Your task to perform on an android device: Open eBay Image 0: 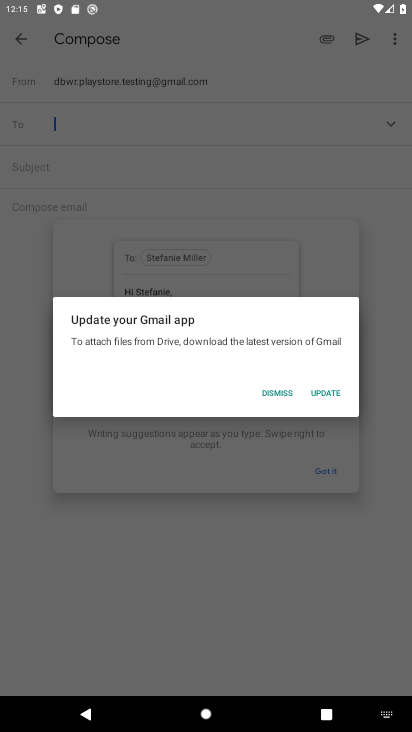
Step 0: press home button
Your task to perform on an android device: Open eBay Image 1: 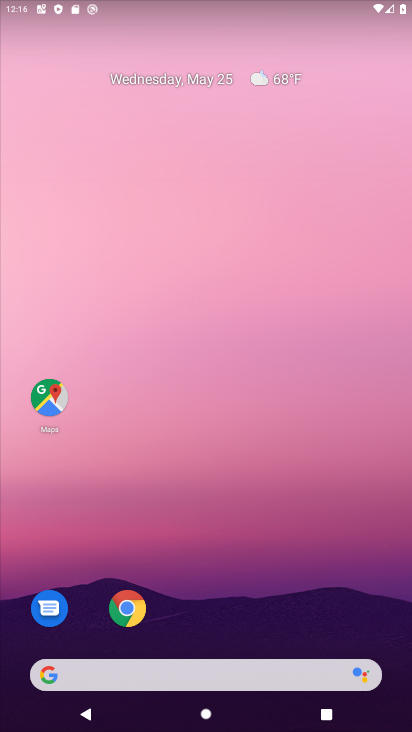
Step 1: click (139, 623)
Your task to perform on an android device: Open eBay Image 2: 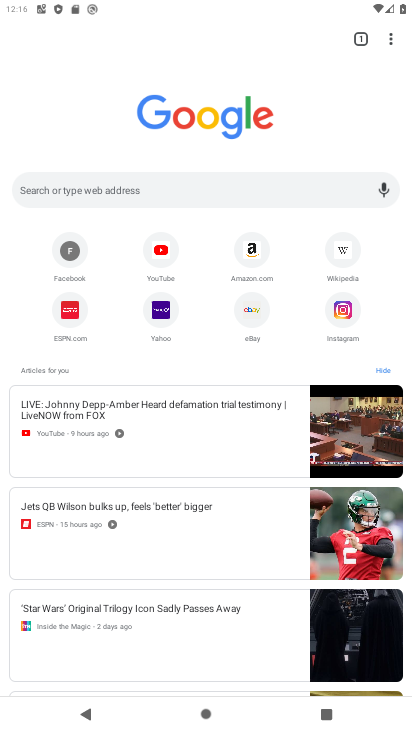
Step 2: click (251, 309)
Your task to perform on an android device: Open eBay Image 3: 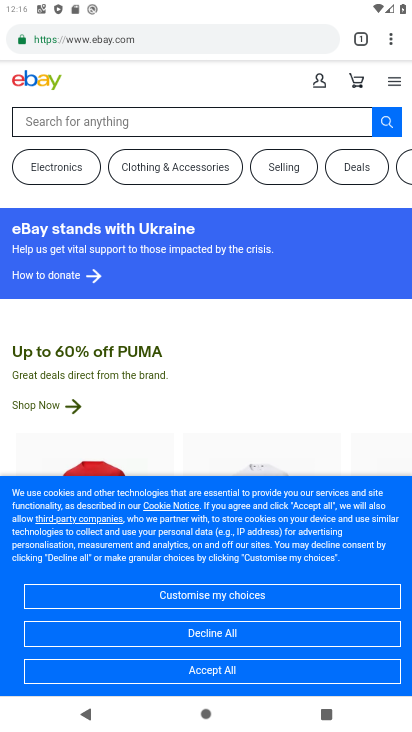
Step 3: task complete